Your task to perform on an android device: make emails show in primary in the gmail app Image 0: 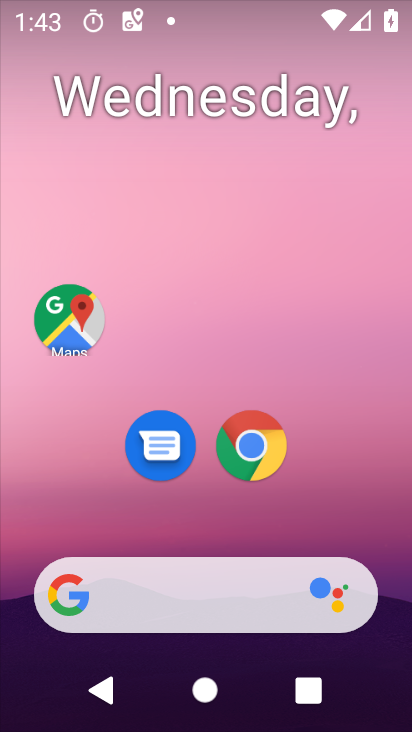
Step 0: press home button
Your task to perform on an android device: make emails show in primary in the gmail app Image 1: 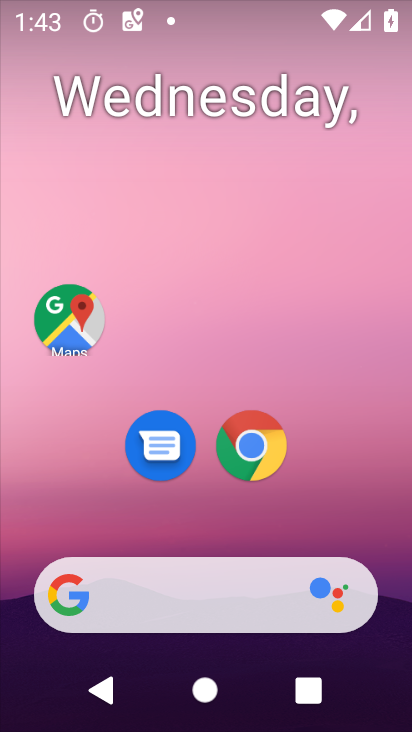
Step 1: drag from (405, 575) to (319, 117)
Your task to perform on an android device: make emails show in primary in the gmail app Image 2: 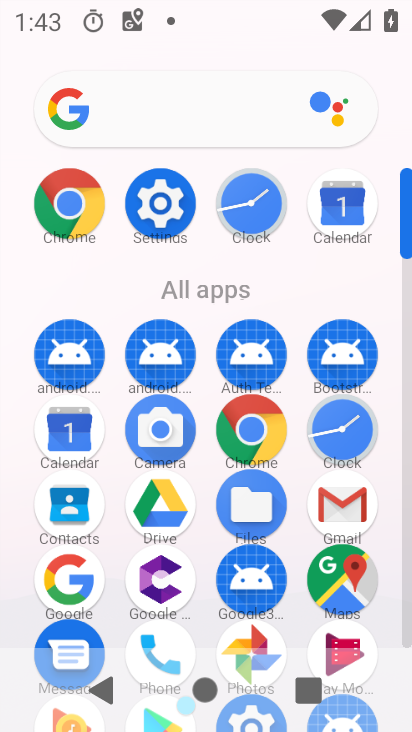
Step 2: click (349, 62)
Your task to perform on an android device: make emails show in primary in the gmail app Image 3: 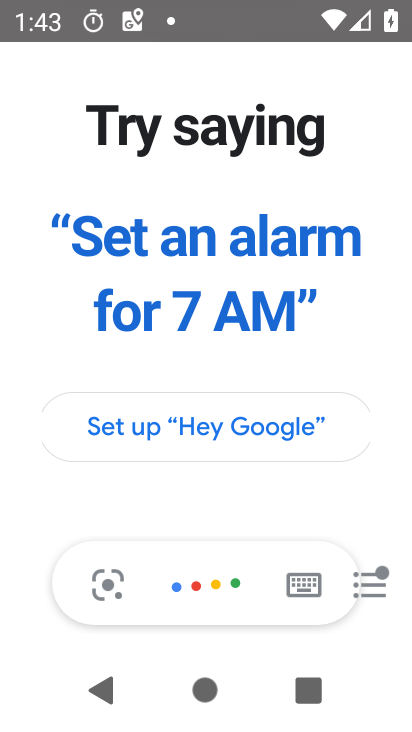
Step 3: press home button
Your task to perform on an android device: make emails show in primary in the gmail app Image 4: 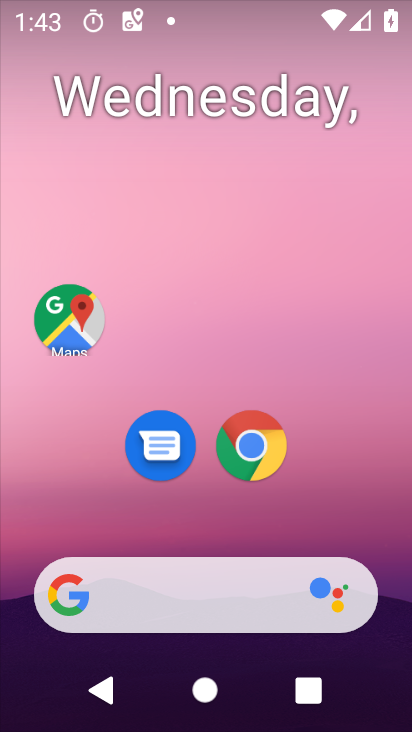
Step 4: drag from (349, 448) to (363, 23)
Your task to perform on an android device: make emails show in primary in the gmail app Image 5: 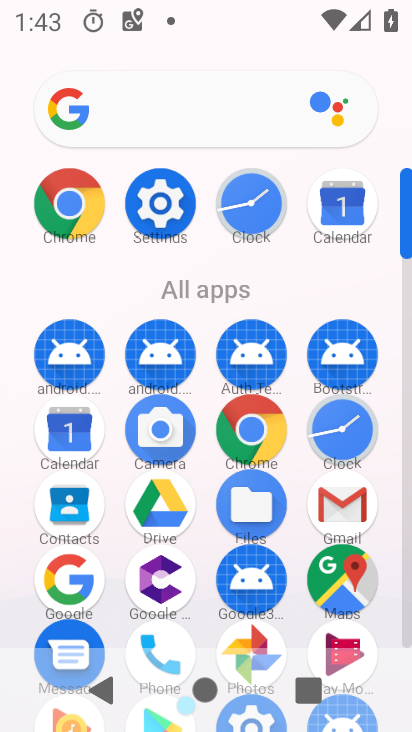
Step 5: click (352, 510)
Your task to perform on an android device: make emails show in primary in the gmail app Image 6: 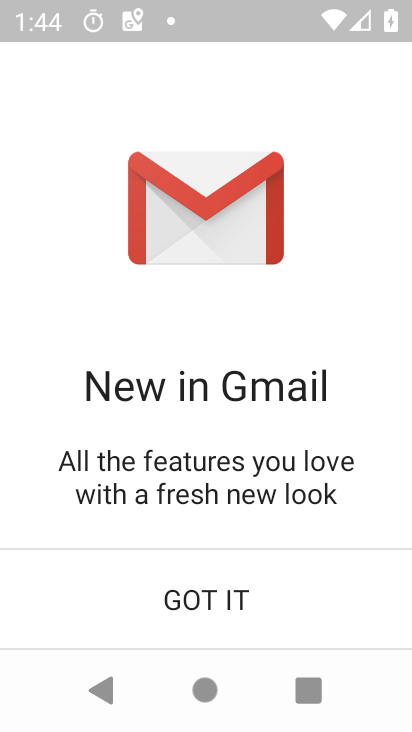
Step 6: click (273, 592)
Your task to perform on an android device: make emails show in primary in the gmail app Image 7: 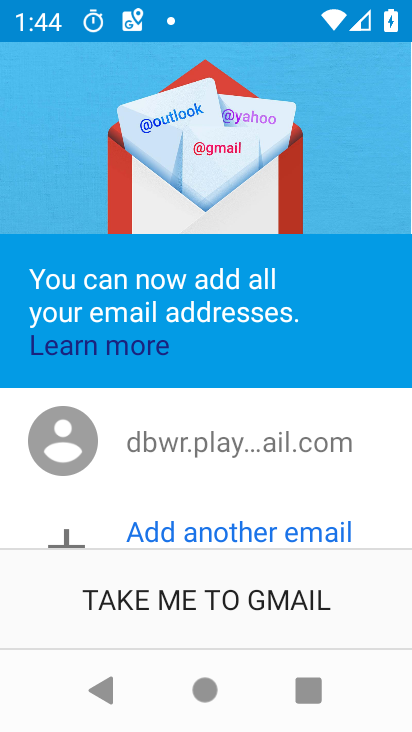
Step 7: click (276, 594)
Your task to perform on an android device: make emails show in primary in the gmail app Image 8: 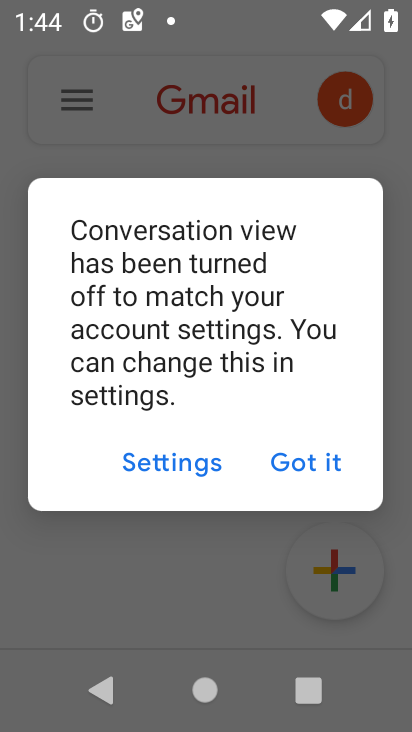
Step 8: click (322, 470)
Your task to perform on an android device: make emails show in primary in the gmail app Image 9: 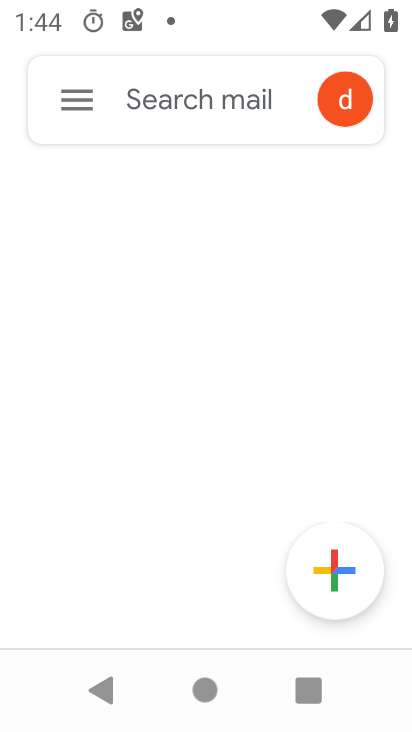
Step 9: click (81, 99)
Your task to perform on an android device: make emails show in primary in the gmail app Image 10: 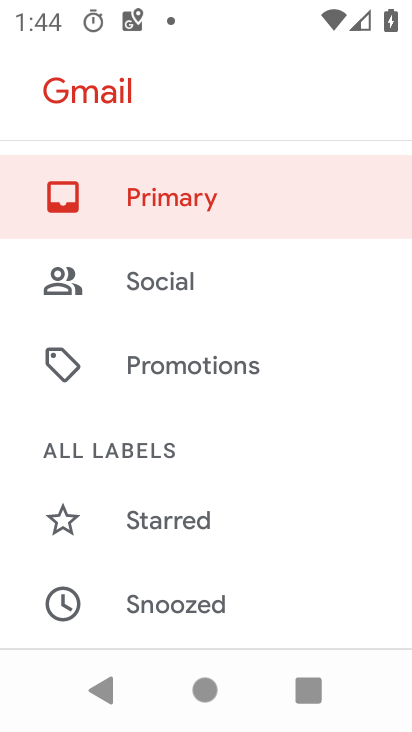
Step 10: task complete